Your task to perform on an android device: turn off location history Image 0: 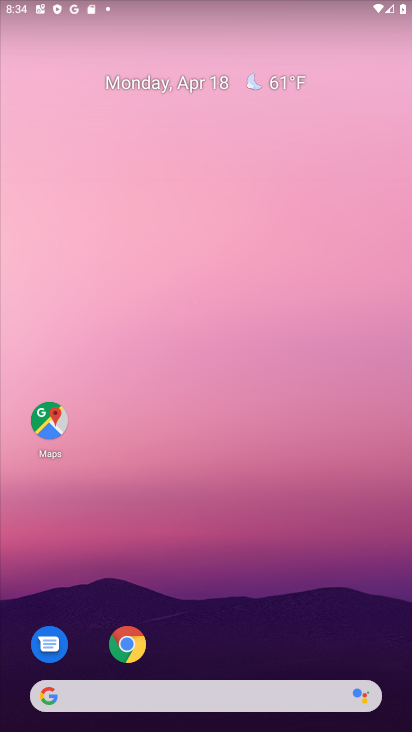
Step 0: drag from (214, 692) to (220, 376)
Your task to perform on an android device: turn off location history Image 1: 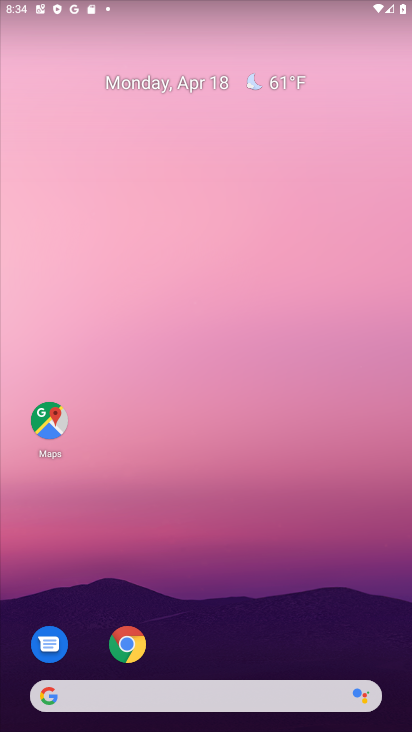
Step 1: drag from (219, 690) to (244, 248)
Your task to perform on an android device: turn off location history Image 2: 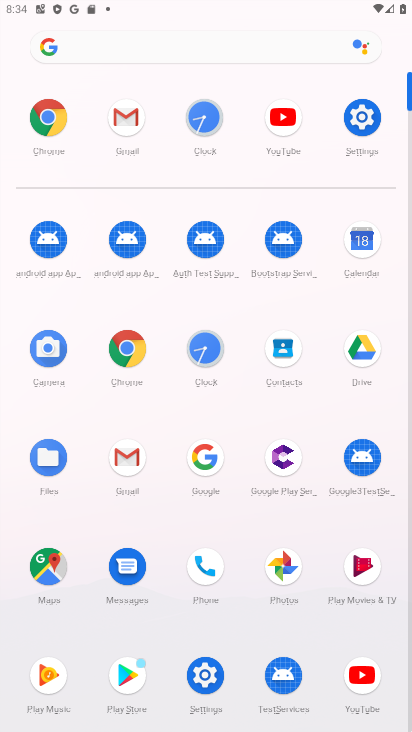
Step 2: click (367, 107)
Your task to perform on an android device: turn off location history Image 3: 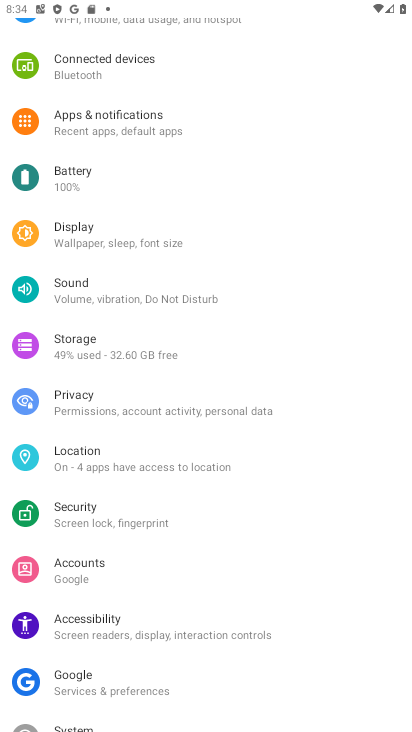
Step 3: click (67, 469)
Your task to perform on an android device: turn off location history Image 4: 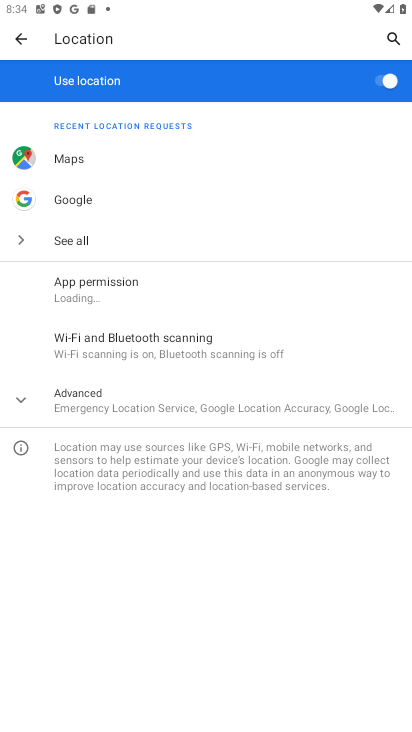
Step 4: click (132, 406)
Your task to perform on an android device: turn off location history Image 5: 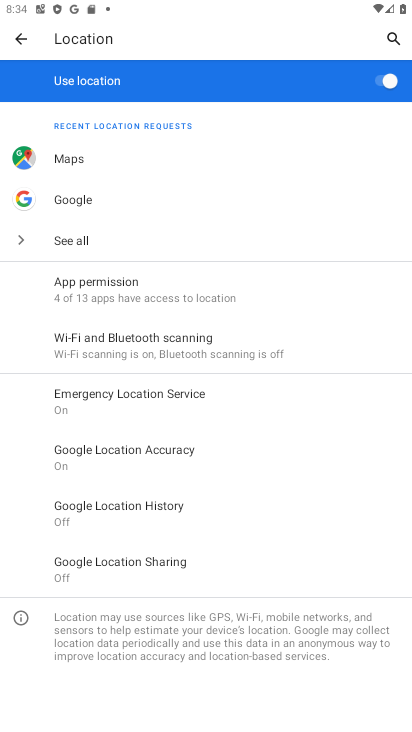
Step 5: click (177, 514)
Your task to perform on an android device: turn off location history Image 6: 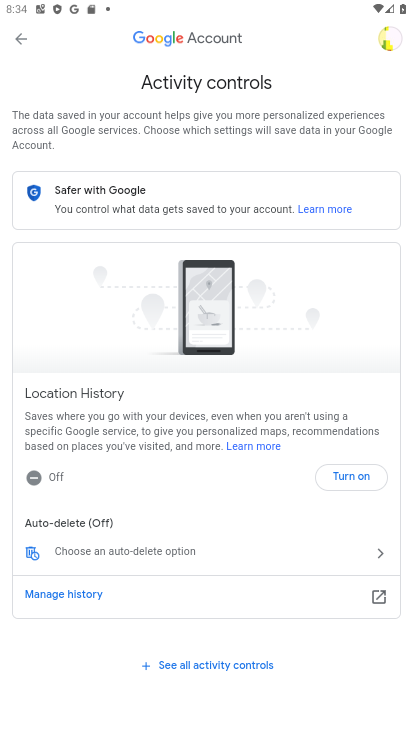
Step 6: task complete